Your task to perform on an android device: move an email to a new category in the gmail app Image 0: 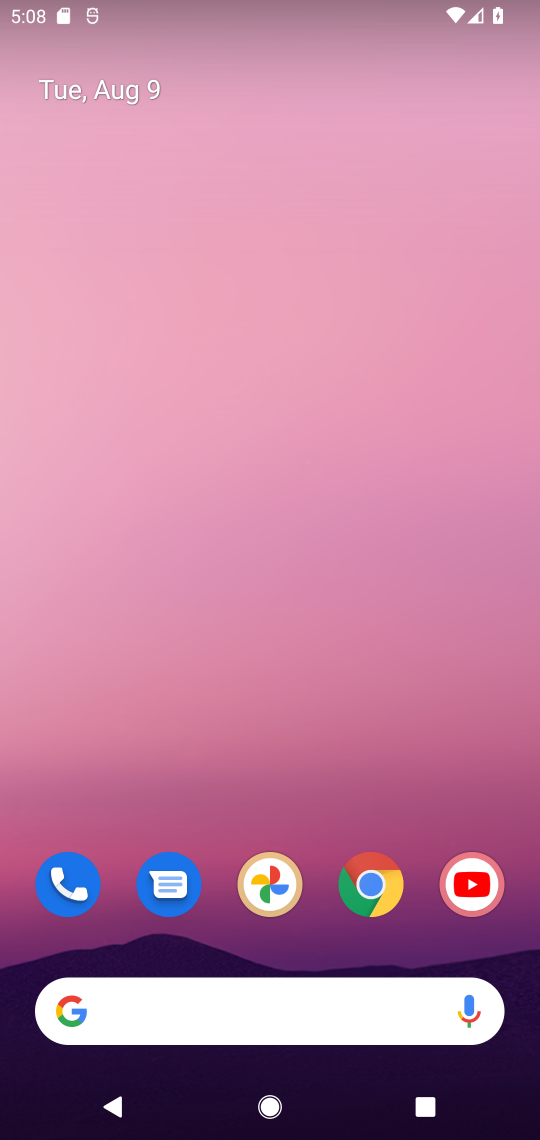
Step 0: drag from (247, 1005) to (195, 283)
Your task to perform on an android device: move an email to a new category in the gmail app Image 1: 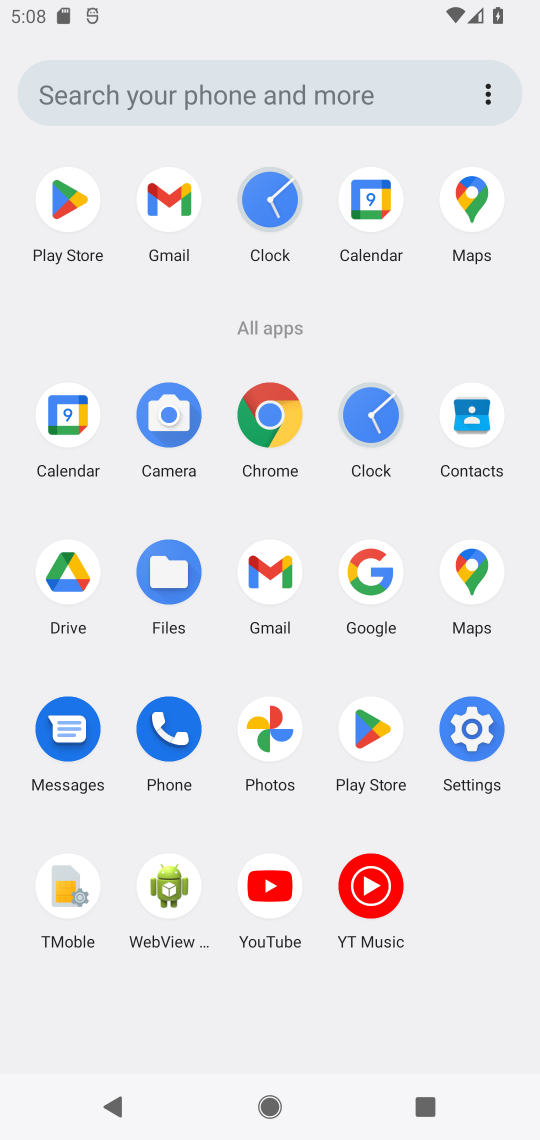
Step 1: click (170, 202)
Your task to perform on an android device: move an email to a new category in the gmail app Image 2: 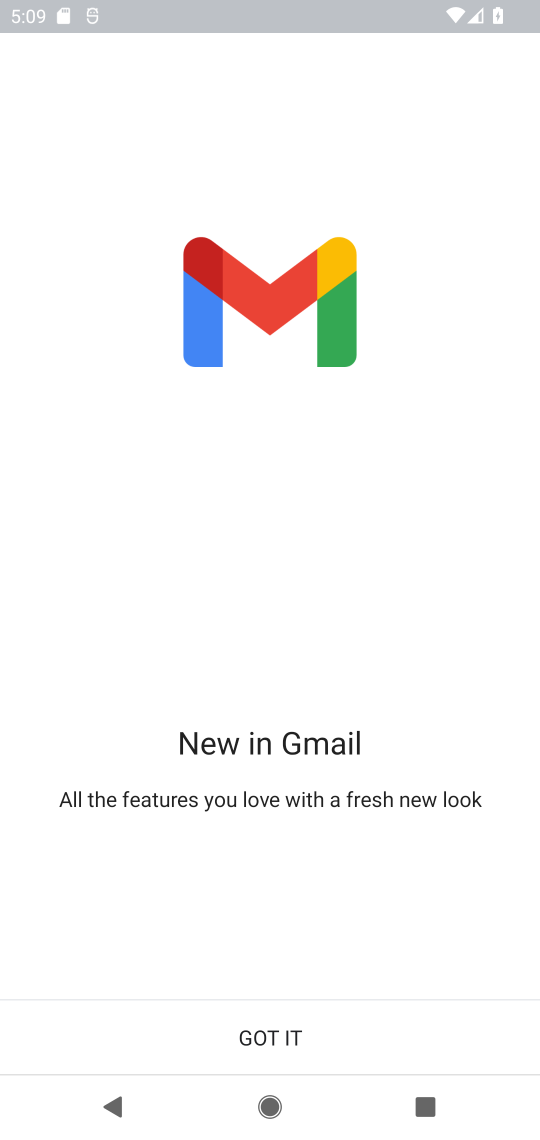
Step 2: click (266, 1031)
Your task to perform on an android device: move an email to a new category in the gmail app Image 3: 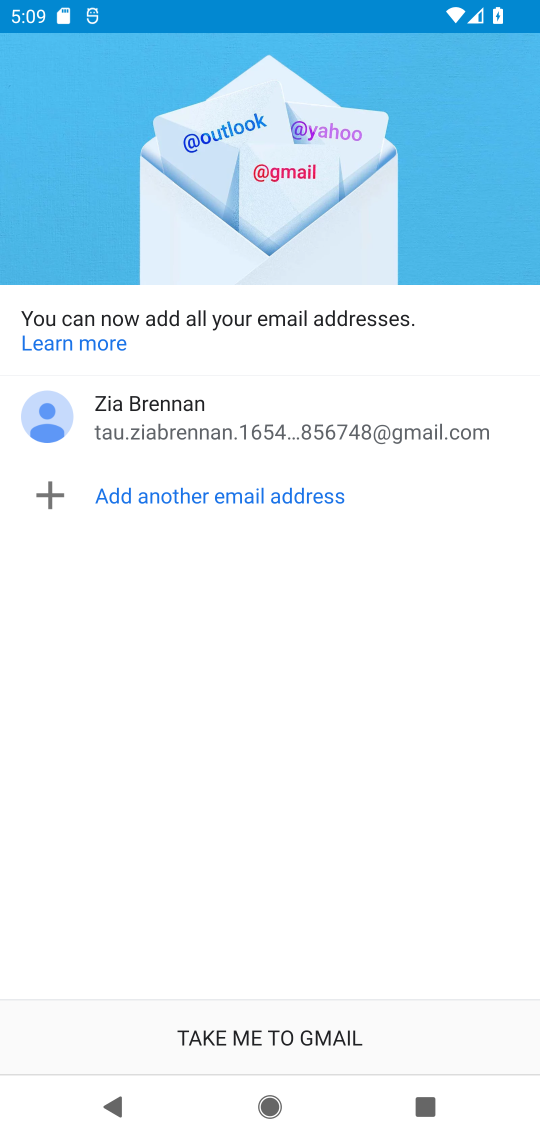
Step 3: click (266, 1031)
Your task to perform on an android device: move an email to a new category in the gmail app Image 4: 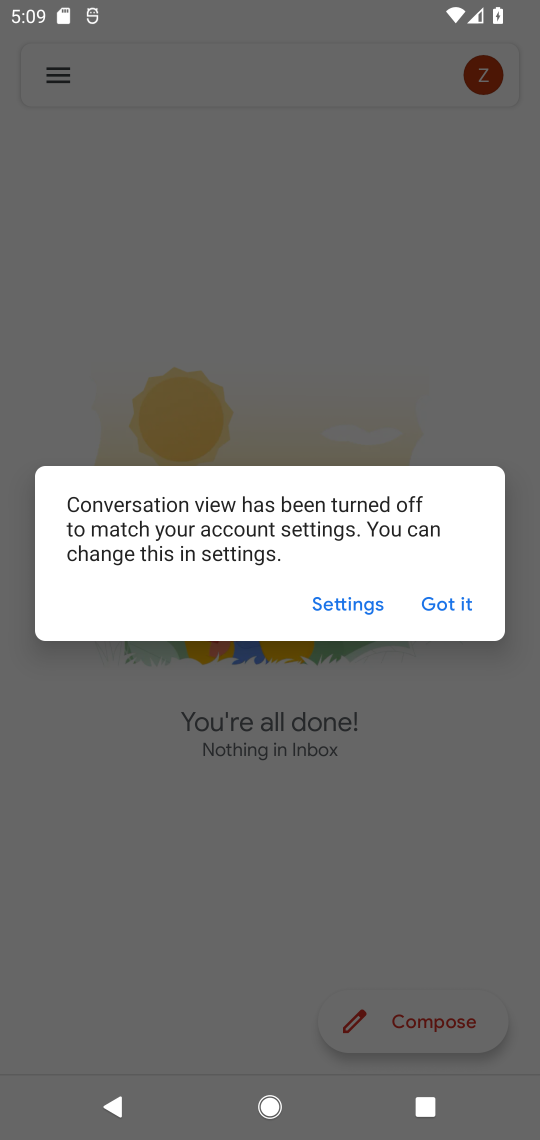
Step 4: click (458, 605)
Your task to perform on an android device: move an email to a new category in the gmail app Image 5: 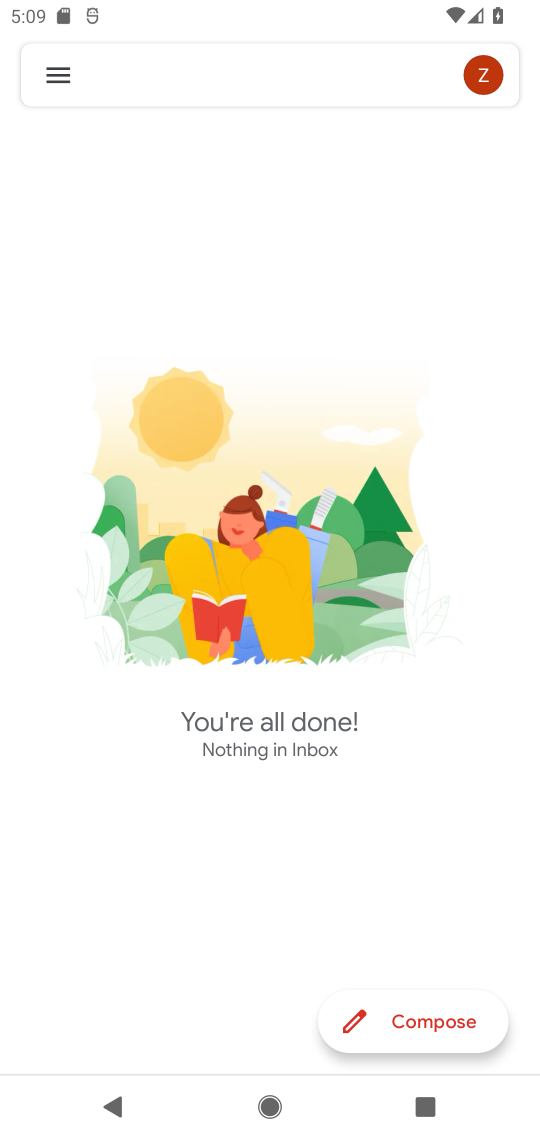
Step 5: click (56, 76)
Your task to perform on an android device: move an email to a new category in the gmail app Image 6: 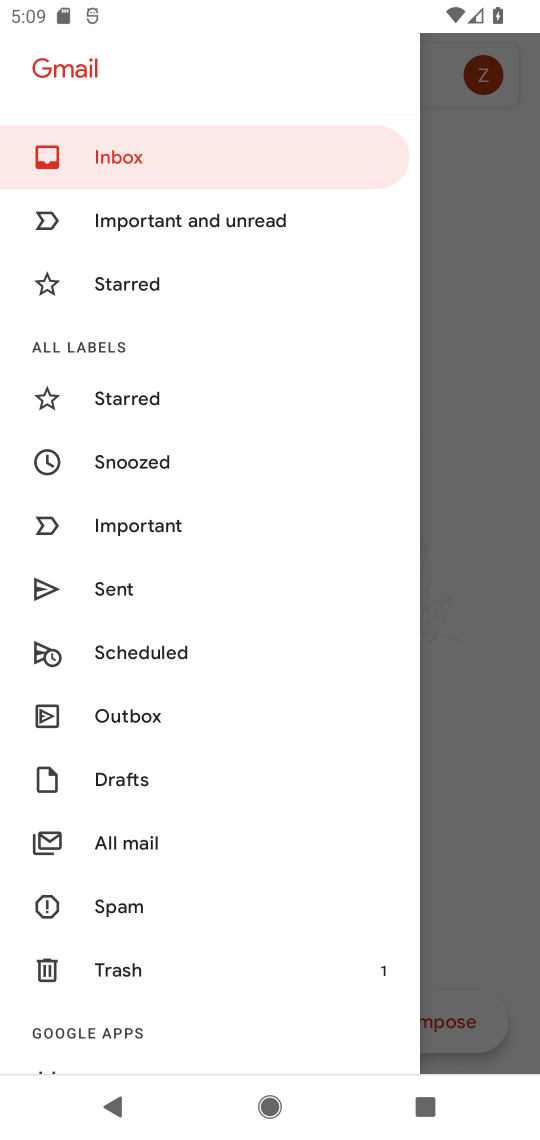
Step 6: click (138, 839)
Your task to perform on an android device: move an email to a new category in the gmail app Image 7: 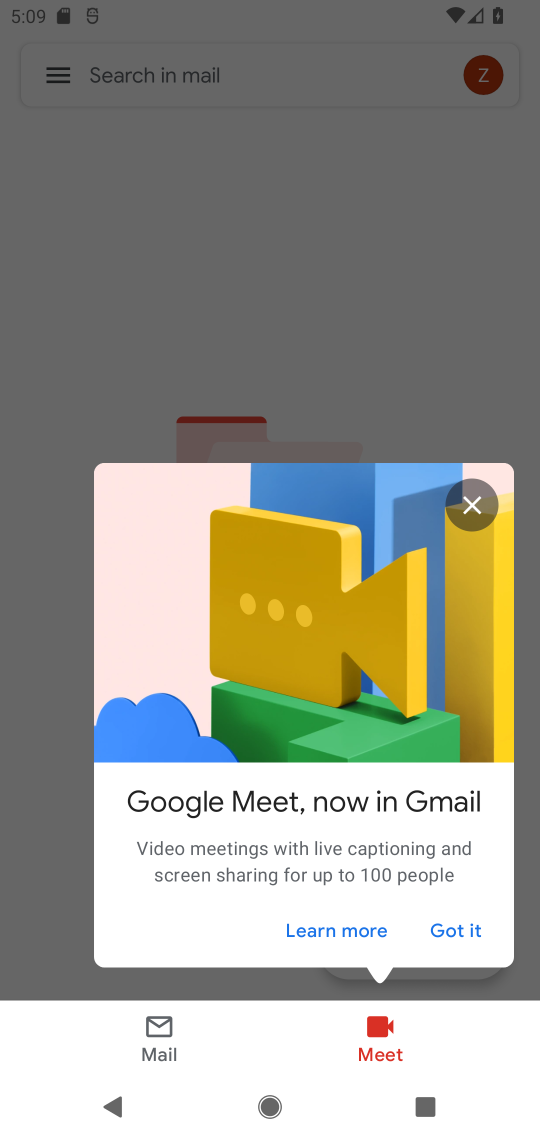
Step 7: click (459, 932)
Your task to perform on an android device: move an email to a new category in the gmail app Image 8: 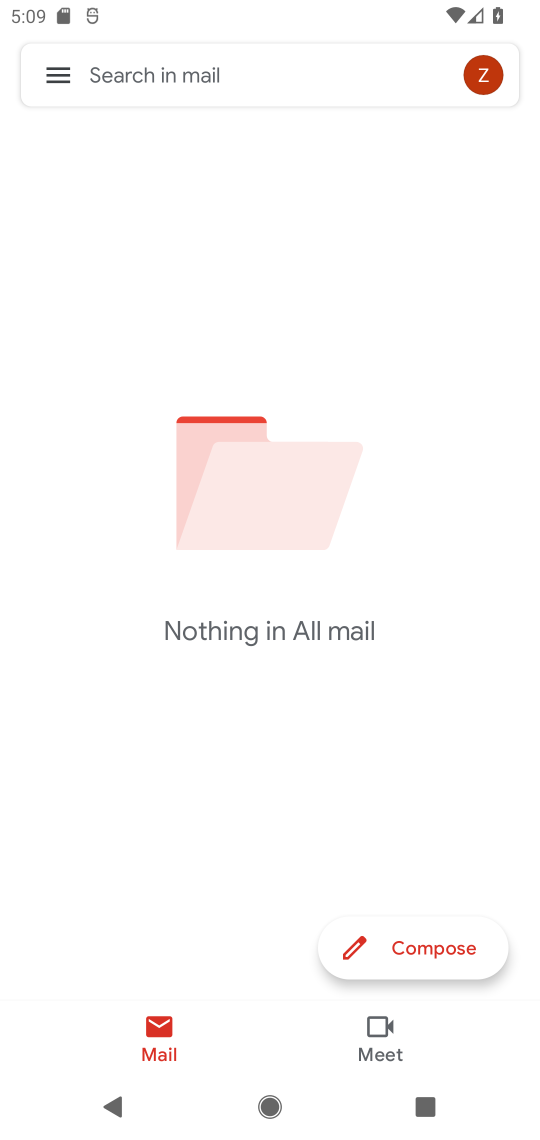
Step 8: click (51, 79)
Your task to perform on an android device: move an email to a new category in the gmail app Image 9: 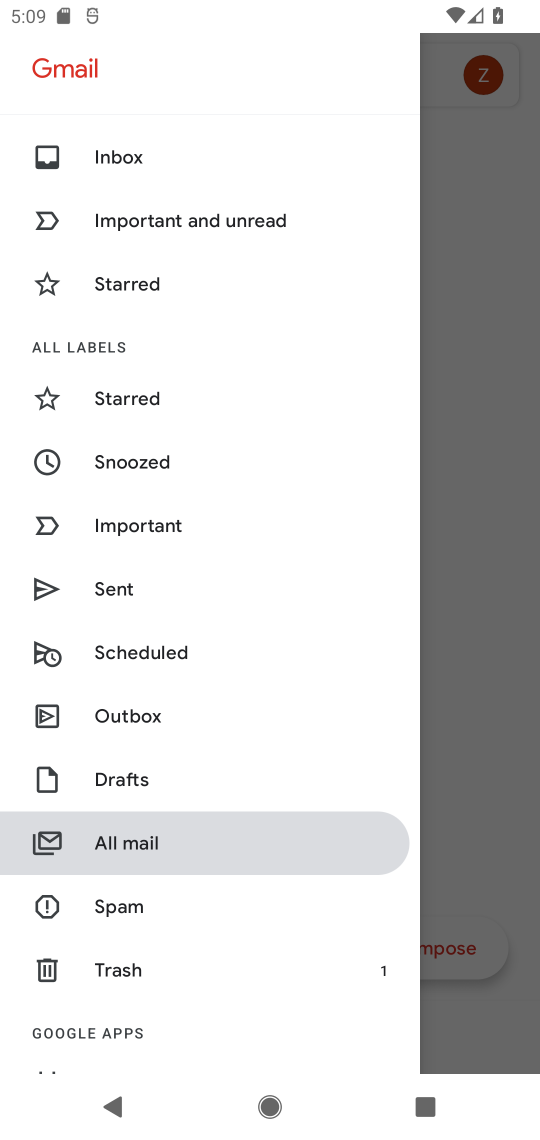
Step 9: click (124, 218)
Your task to perform on an android device: move an email to a new category in the gmail app Image 10: 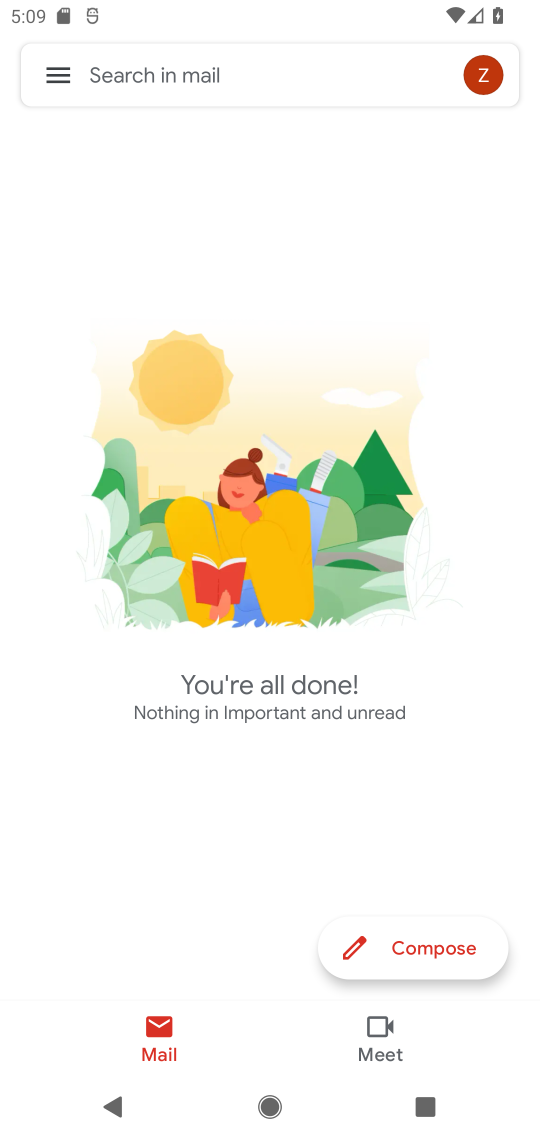
Step 10: click (57, 70)
Your task to perform on an android device: move an email to a new category in the gmail app Image 11: 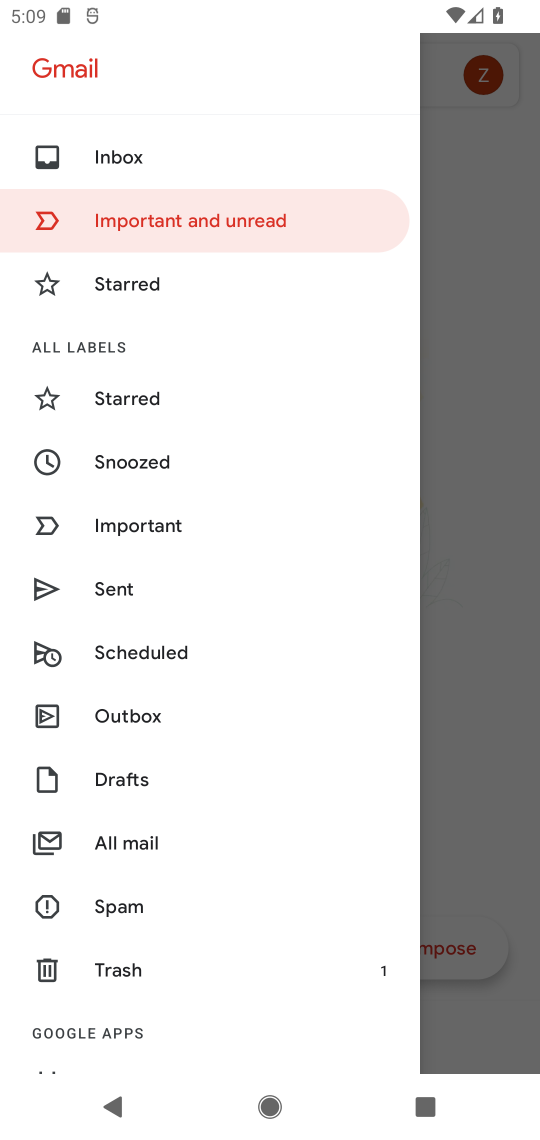
Step 11: click (133, 307)
Your task to perform on an android device: move an email to a new category in the gmail app Image 12: 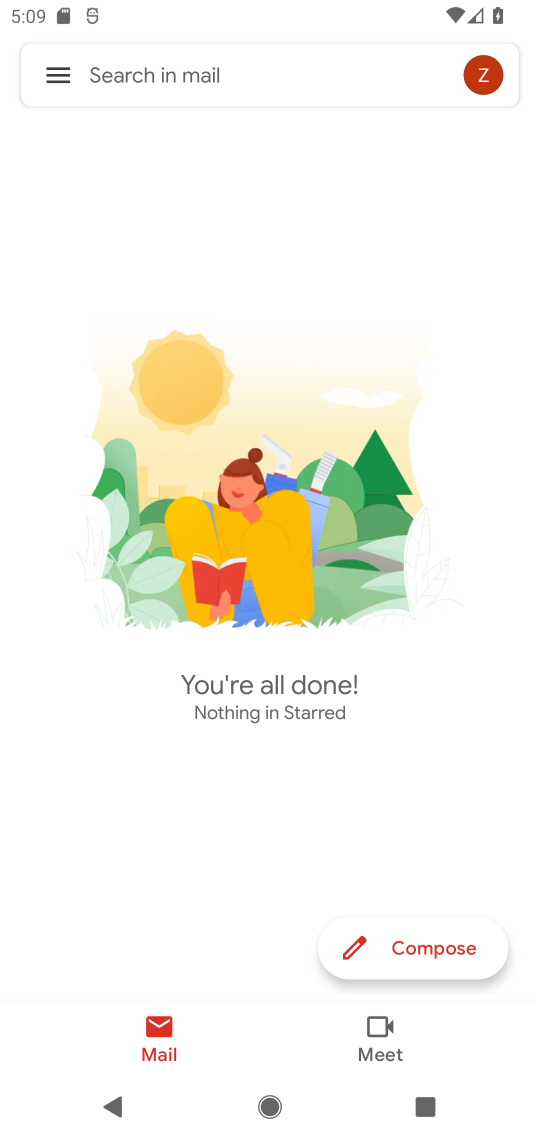
Step 12: click (66, 69)
Your task to perform on an android device: move an email to a new category in the gmail app Image 13: 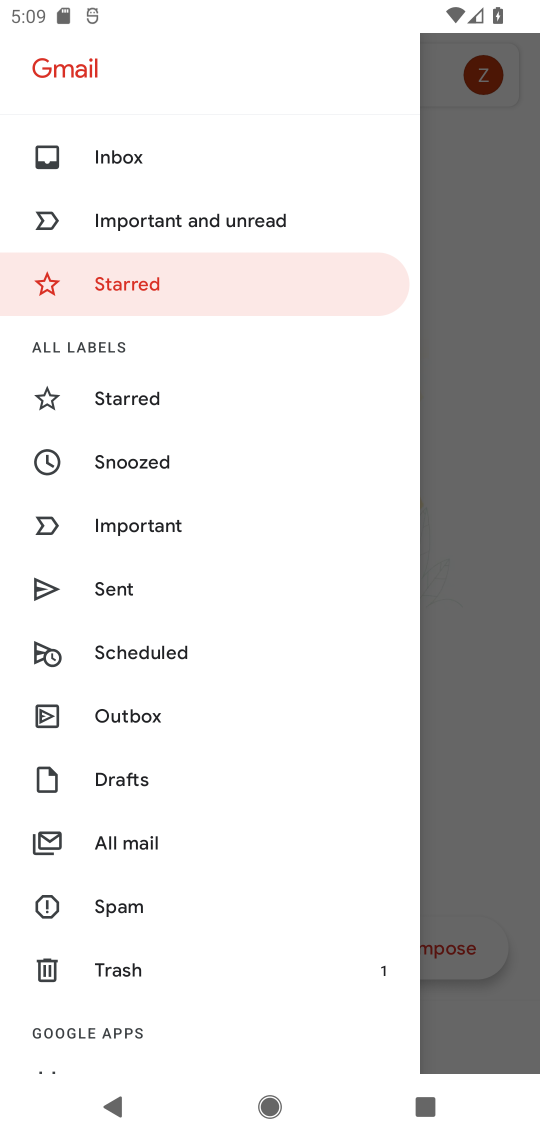
Step 13: click (141, 471)
Your task to perform on an android device: move an email to a new category in the gmail app Image 14: 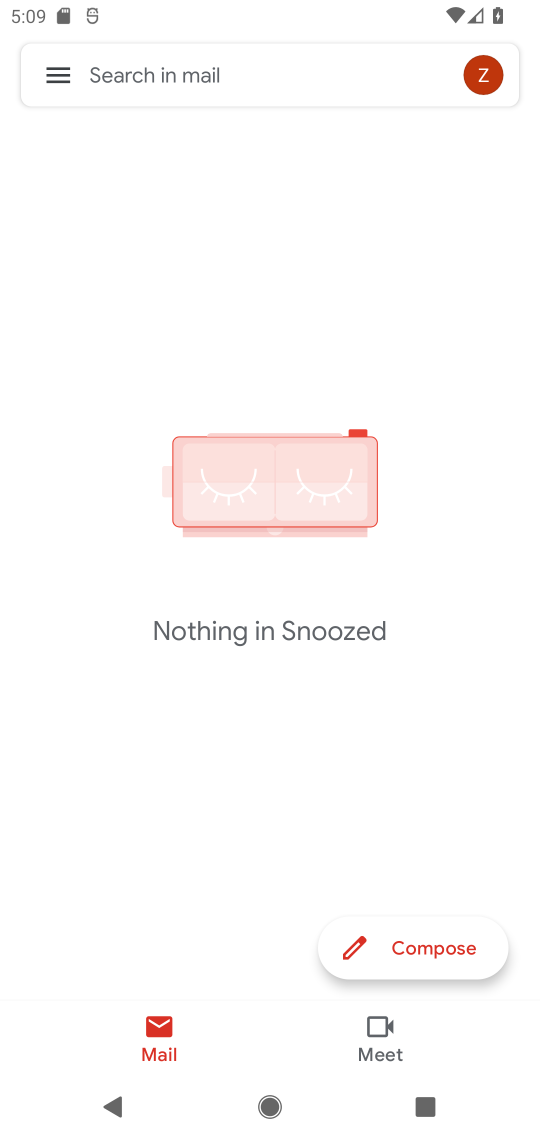
Step 14: click (48, 84)
Your task to perform on an android device: move an email to a new category in the gmail app Image 15: 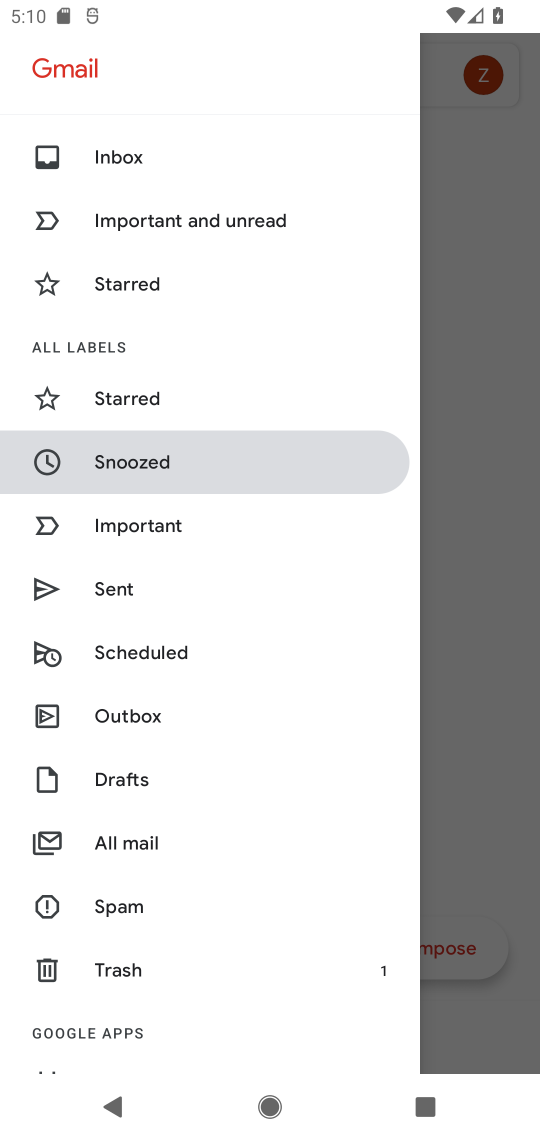
Step 15: click (126, 582)
Your task to perform on an android device: move an email to a new category in the gmail app Image 16: 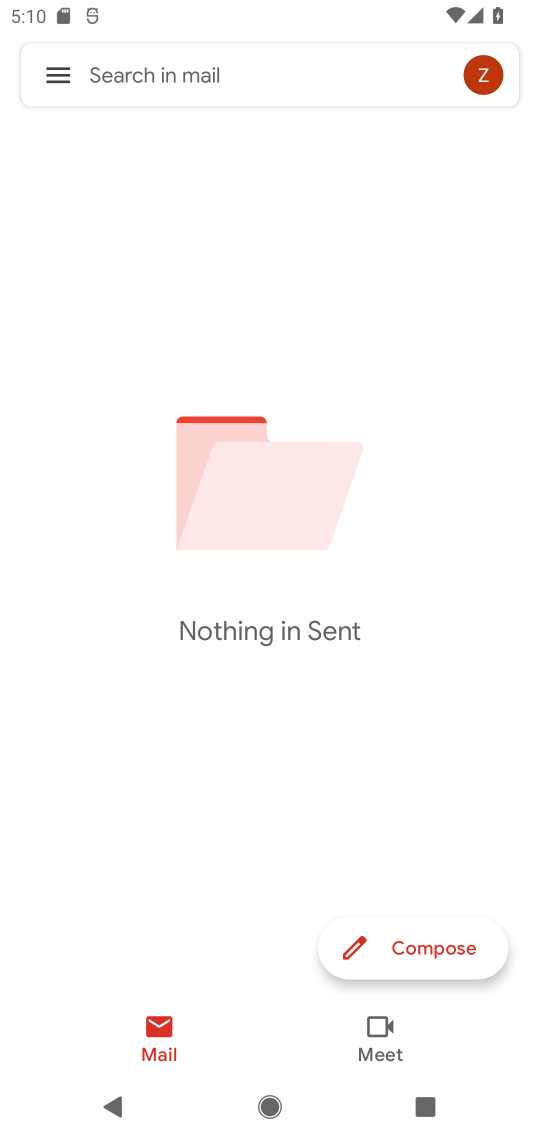
Step 16: task complete